Your task to perform on an android device: delete location history Image 0: 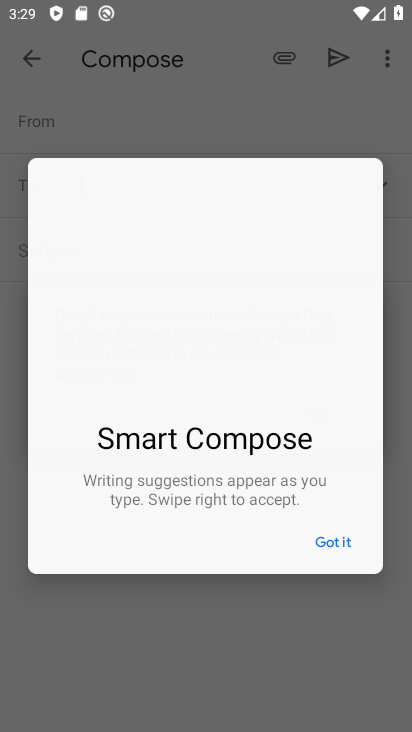
Step 0: press home button
Your task to perform on an android device: delete location history Image 1: 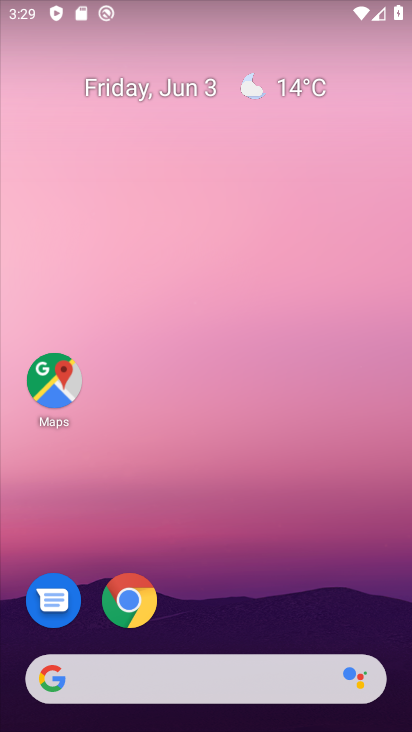
Step 1: drag from (81, 542) to (278, 178)
Your task to perform on an android device: delete location history Image 2: 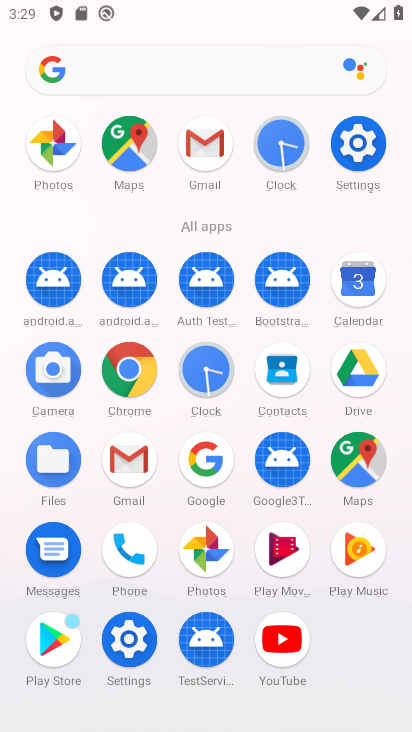
Step 2: click (349, 139)
Your task to perform on an android device: delete location history Image 3: 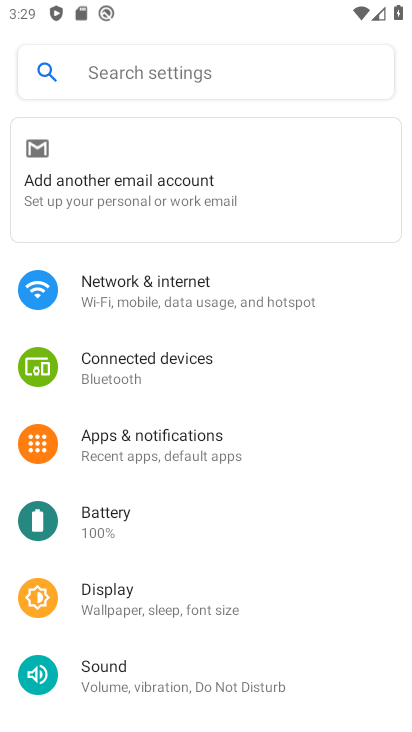
Step 3: drag from (5, 601) to (223, 291)
Your task to perform on an android device: delete location history Image 4: 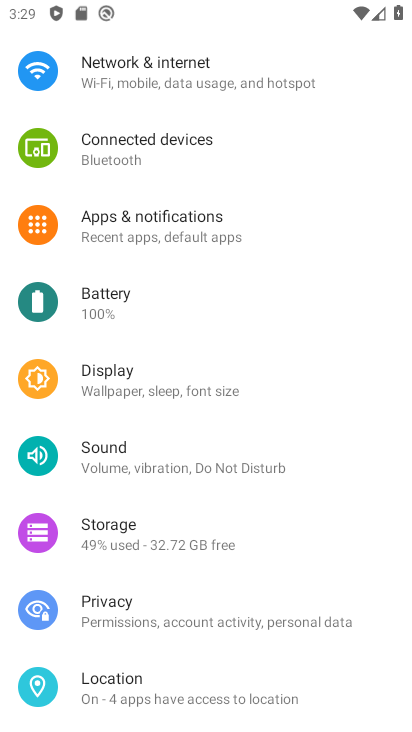
Step 4: click (102, 691)
Your task to perform on an android device: delete location history Image 5: 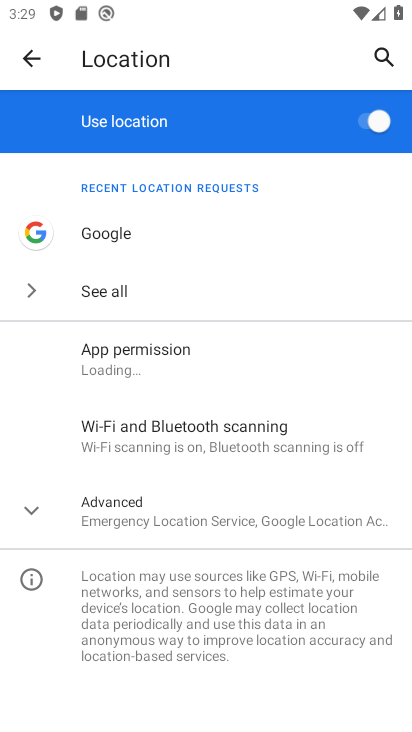
Step 5: click (211, 506)
Your task to perform on an android device: delete location history Image 6: 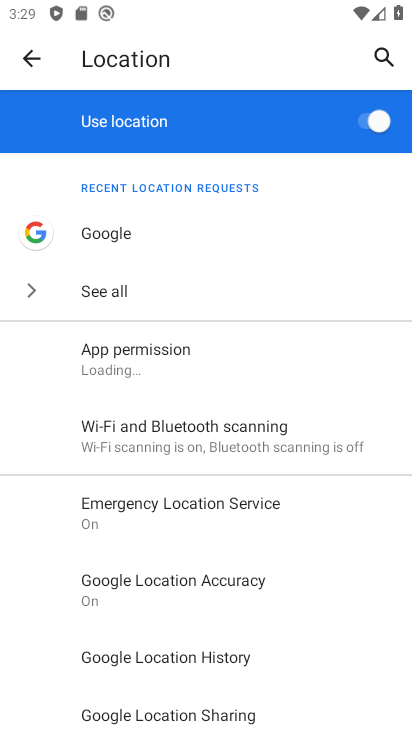
Step 6: click (91, 661)
Your task to perform on an android device: delete location history Image 7: 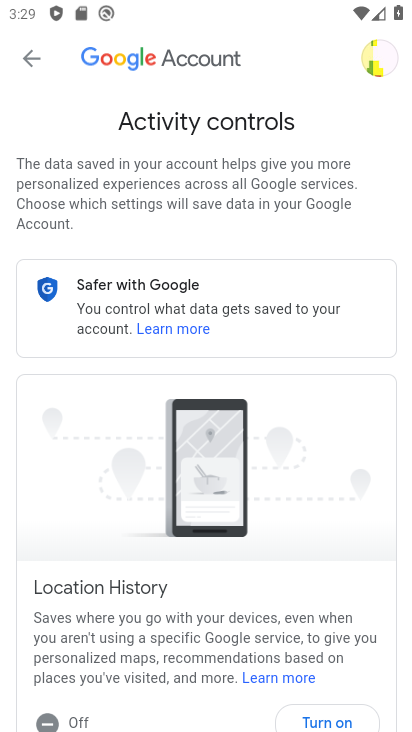
Step 7: drag from (31, 504) to (220, 82)
Your task to perform on an android device: delete location history Image 8: 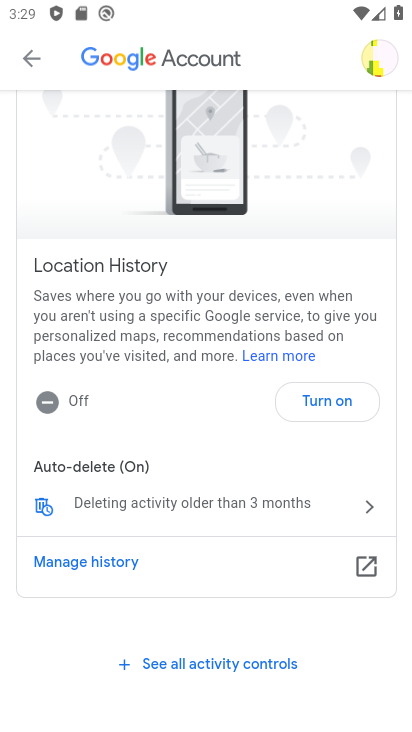
Step 8: click (309, 404)
Your task to perform on an android device: delete location history Image 9: 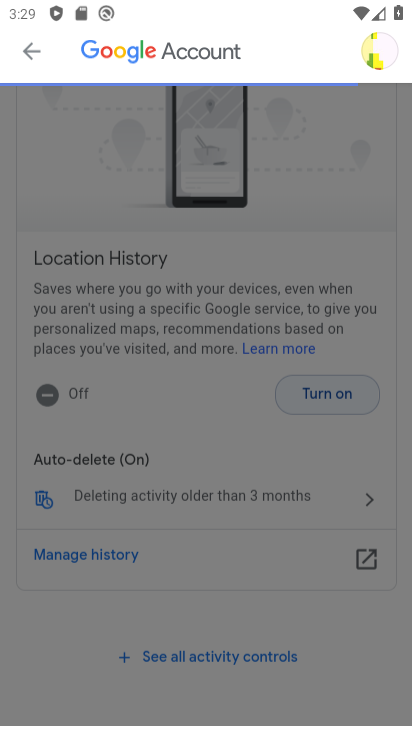
Step 9: task complete